Your task to perform on an android device: change the clock display to digital Image 0: 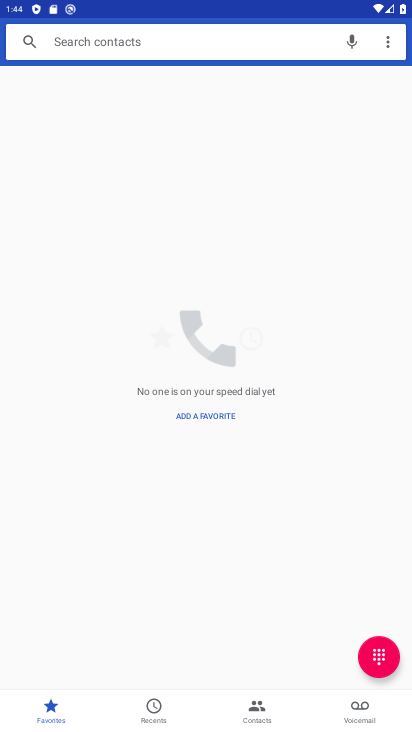
Step 0: press home button
Your task to perform on an android device: change the clock display to digital Image 1: 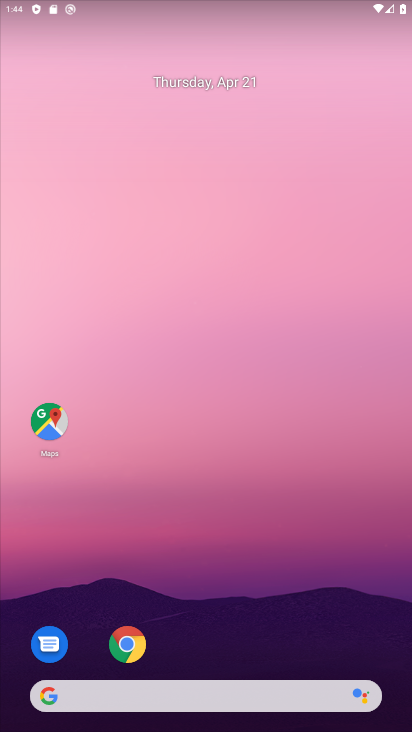
Step 1: drag from (283, 607) to (225, 101)
Your task to perform on an android device: change the clock display to digital Image 2: 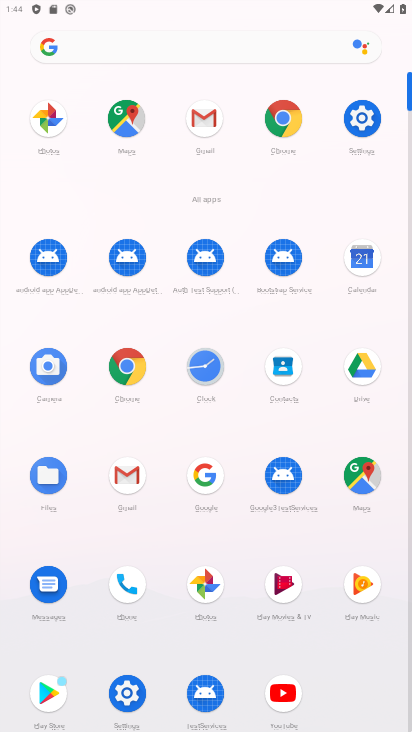
Step 2: click (209, 362)
Your task to perform on an android device: change the clock display to digital Image 3: 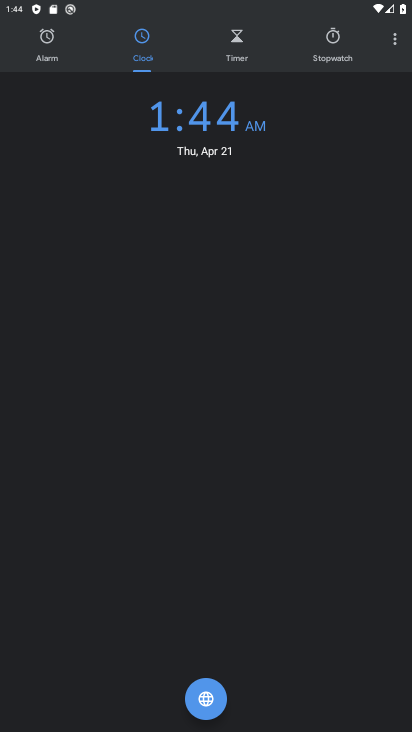
Step 3: click (396, 40)
Your task to perform on an android device: change the clock display to digital Image 4: 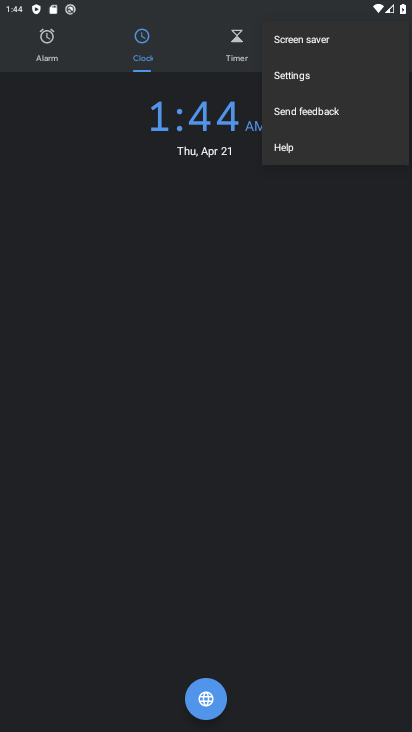
Step 4: click (373, 81)
Your task to perform on an android device: change the clock display to digital Image 5: 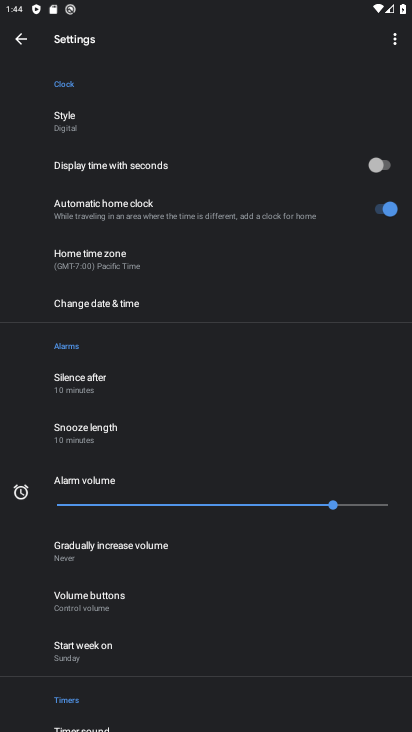
Step 5: click (143, 118)
Your task to perform on an android device: change the clock display to digital Image 6: 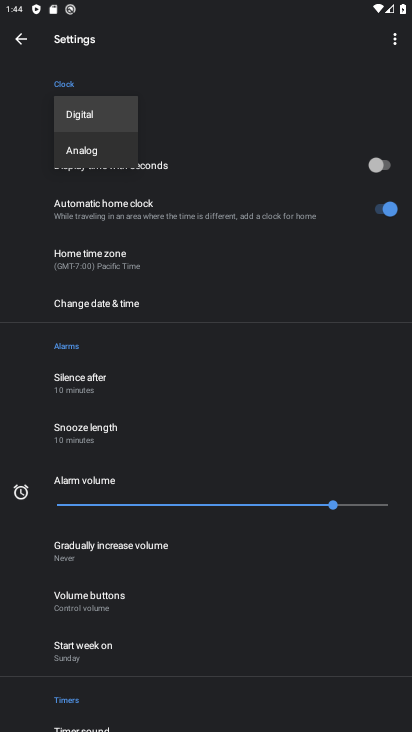
Step 6: task complete